Your task to perform on an android device: Open wifi settings Image 0: 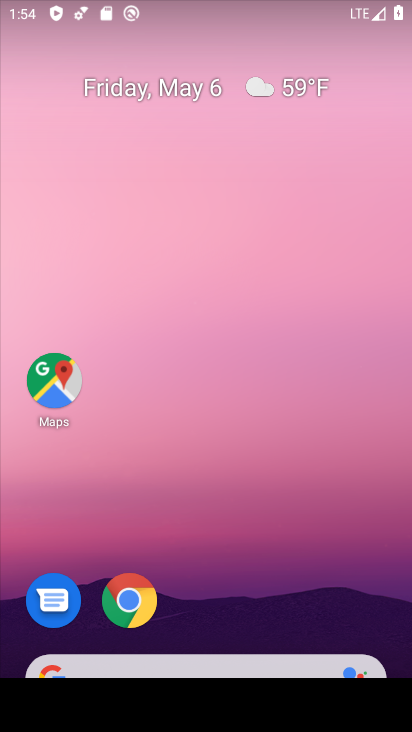
Step 0: drag from (207, 636) to (289, 49)
Your task to perform on an android device: Open wifi settings Image 1: 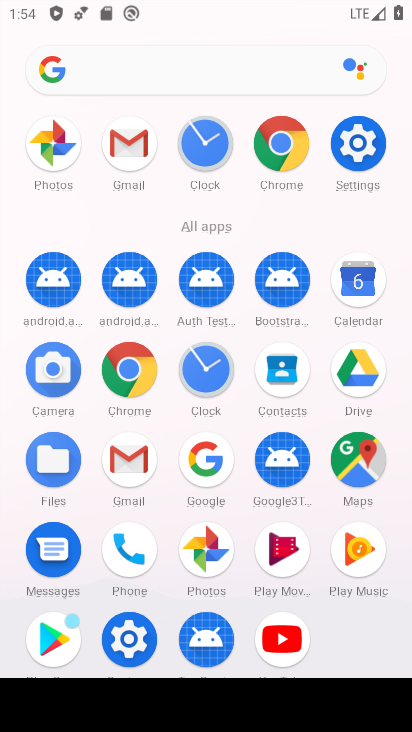
Step 1: click (127, 630)
Your task to perform on an android device: Open wifi settings Image 2: 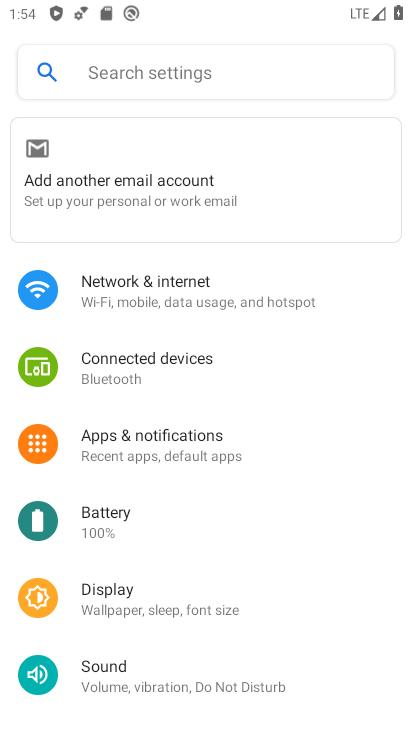
Step 2: click (216, 284)
Your task to perform on an android device: Open wifi settings Image 3: 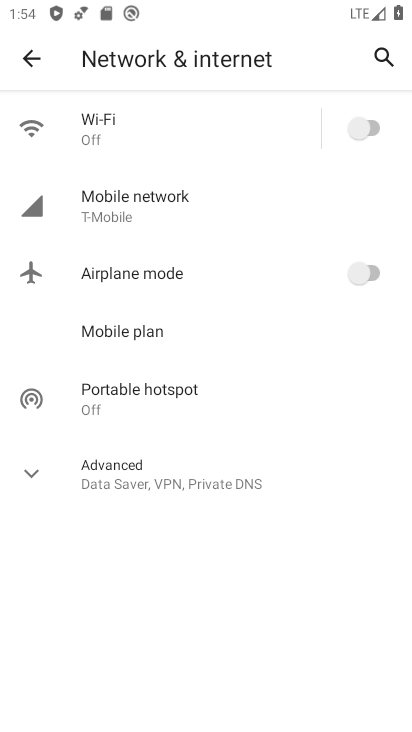
Step 3: click (285, 154)
Your task to perform on an android device: Open wifi settings Image 4: 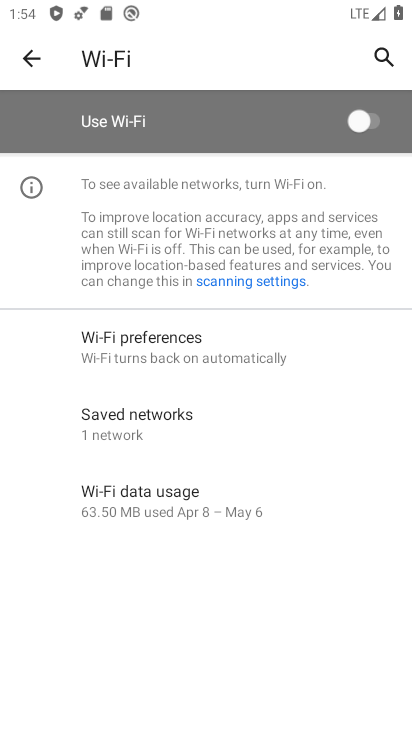
Step 4: click (373, 133)
Your task to perform on an android device: Open wifi settings Image 5: 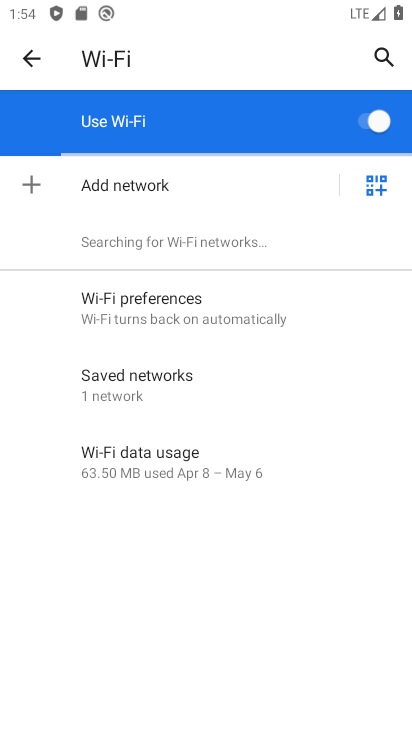
Step 5: task complete